Your task to perform on an android device: Open Maps and search for coffee Image 0: 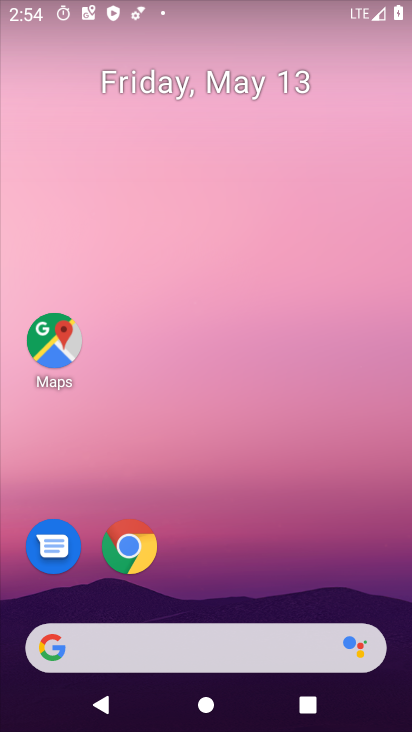
Step 0: drag from (232, 579) to (223, 210)
Your task to perform on an android device: Open Maps and search for coffee Image 1: 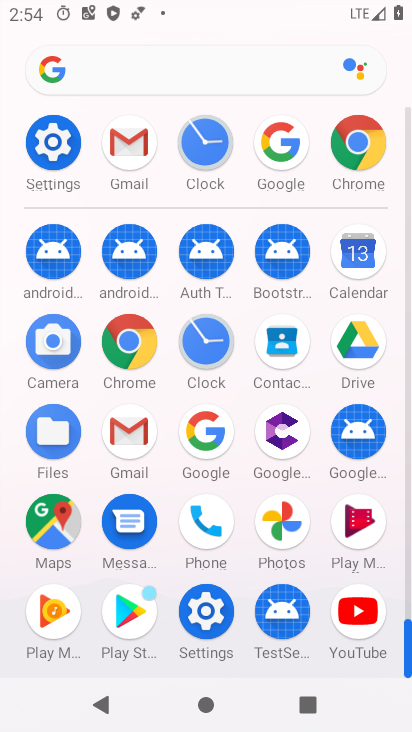
Step 1: click (75, 527)
Your task to perform on an android device: Open Maps and search for coffee Image 2: 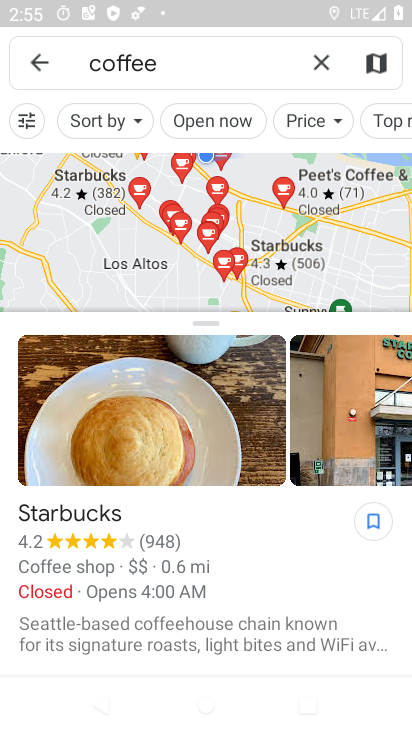
Step 2: task complete